Your task to perform on an android device: change the clock display to show seconds Image 0: 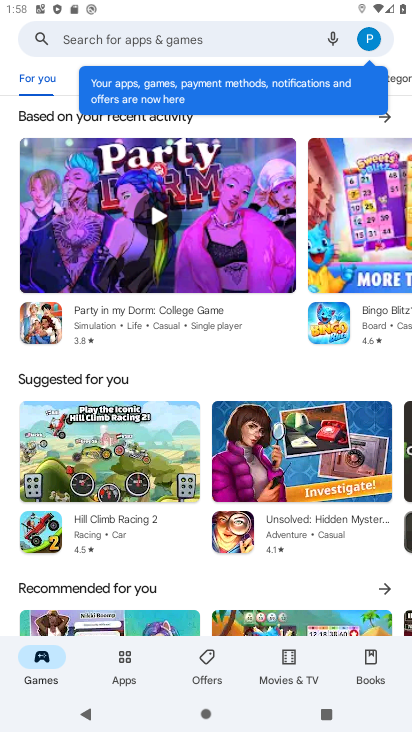
Step 0: press home button
Your task to perform on an android device: change the clock display to show seconds Image 1: 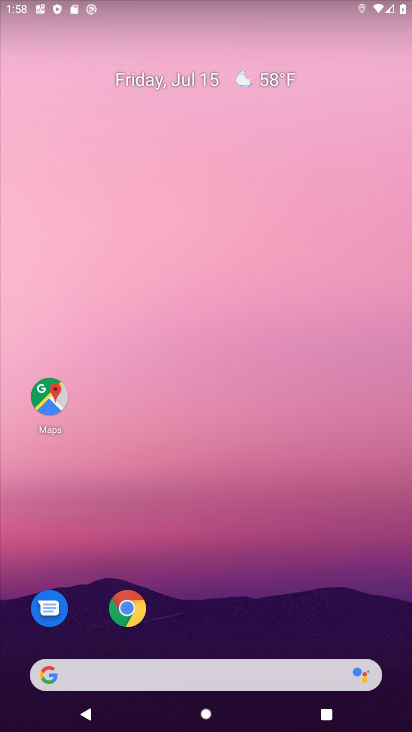
Step 1: drag from (348, 590) to (408, 32)
Your task to perform on an android device: change the clock display to show seconds Image 2: 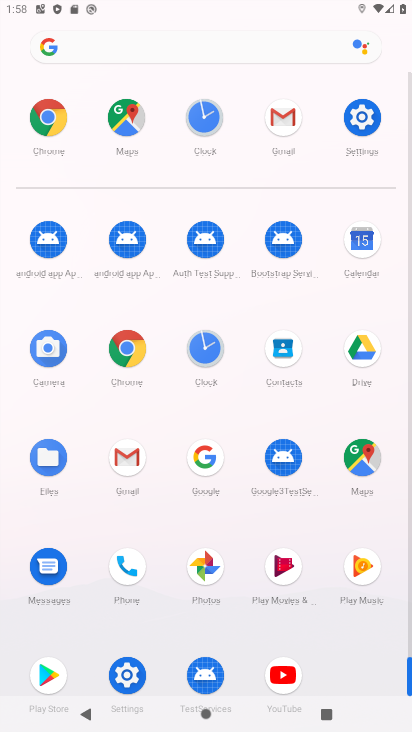
Step 2: click (212, 334)
Your task to perform on an android device: change the clock display to show seconds Image 3: 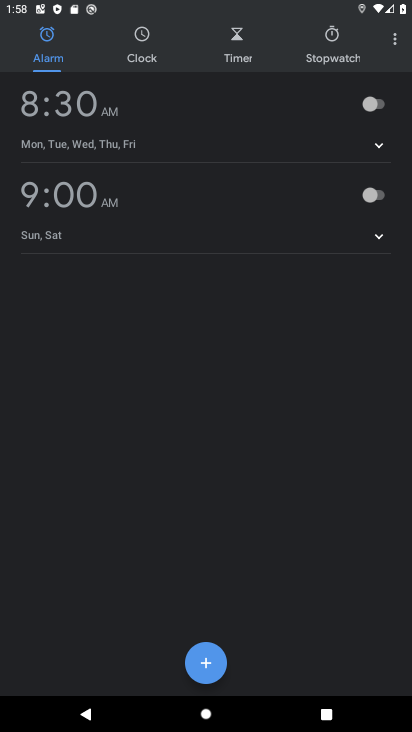
Step 3: click (394, 39)
Your task to perform on an android device: change the clock display to show seconds Image 4: 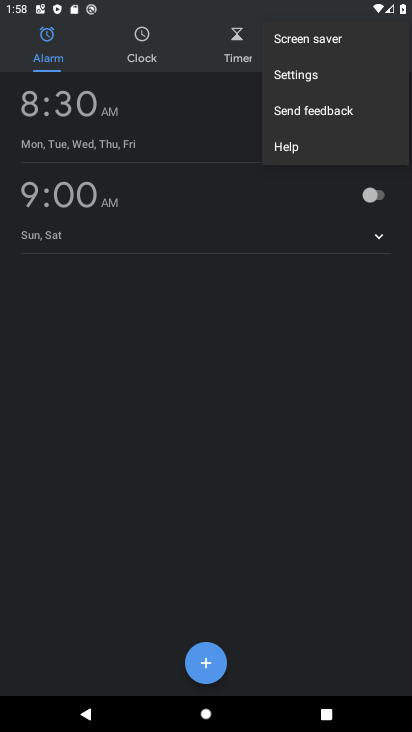
Step 4: click (313, 83)
Your task to perform on an android device: change the clock display to show seconds Image 5: 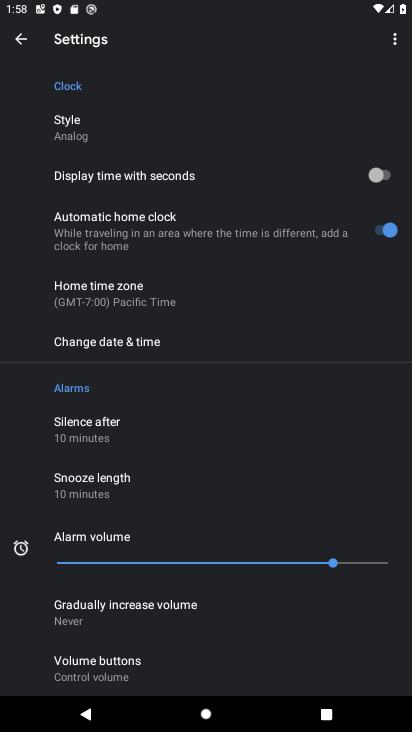
Step 5: drag from (95, 527) to (154, 244)
Your task to perform on an android device: change the clock display to show seconds Image 6: 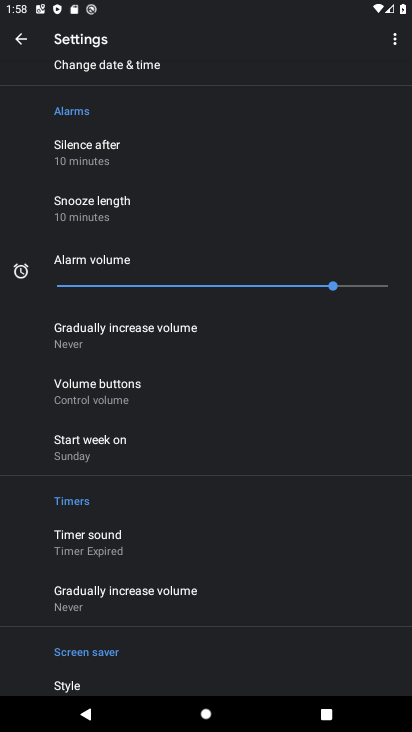
Step 6: drag from (210, 166) to (138, 689)
Your task to perform on an android device: change the clock display to show seconds Image 7: 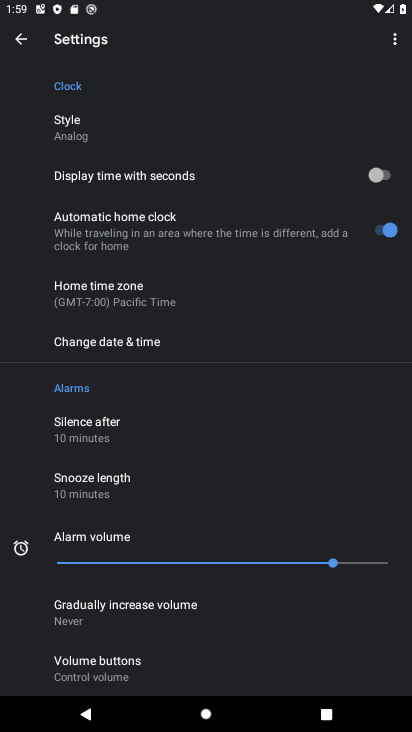
Step 7: click (173, 178)
Your task to perform on an android device: change the clock display to show seconds Image 8: 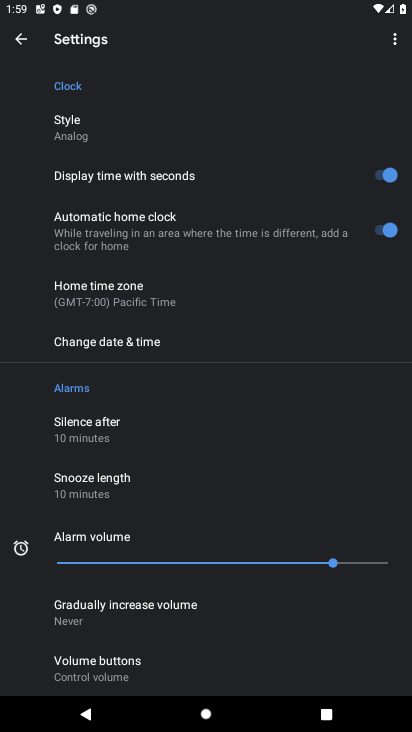
Step 8: task complete